Your task to perform on an android device: What is the news today? Image 0: 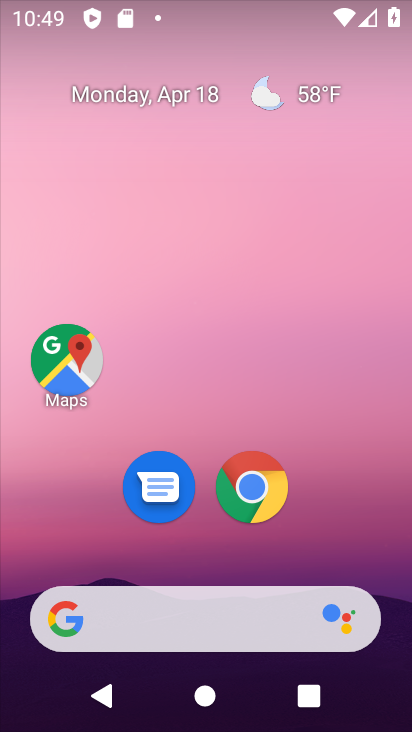
Step 0: drag from (5, 231) to (410, 244)
Your task to perform on an android device: What is the news today? Image 1: 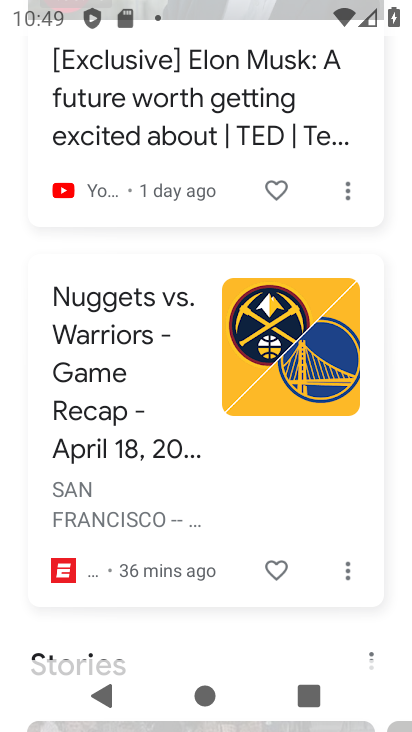
Step 1: task complete